Your task to perform on an android device: Open Google Chrome and click the shortcut for Amazon.com Image 0: 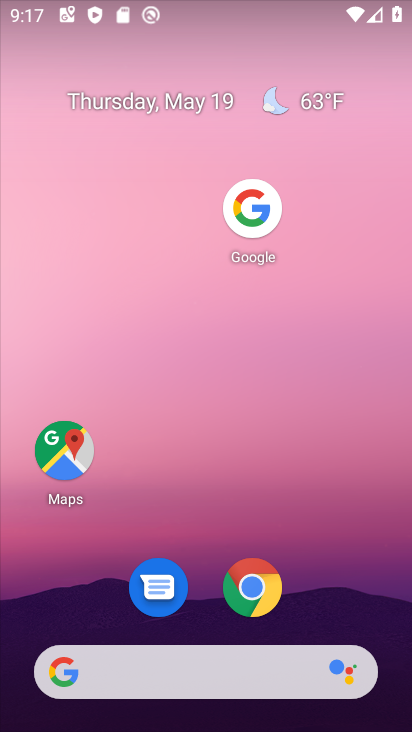
Step 0: click (257, 595)
Your task to perform on an android device: Open Google Chrome and click the shortcut for Amazon.com Image 1: 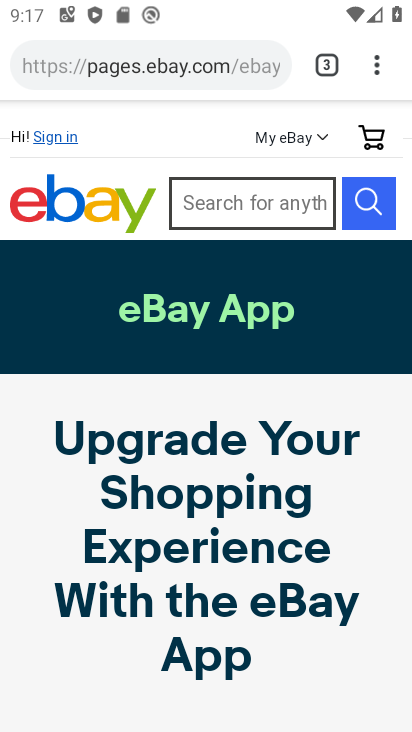
Step 1: click (333, 69)
Your task to perform on an android device: Open Google Chrome and click the shortcut for Amazon.com Image 2: 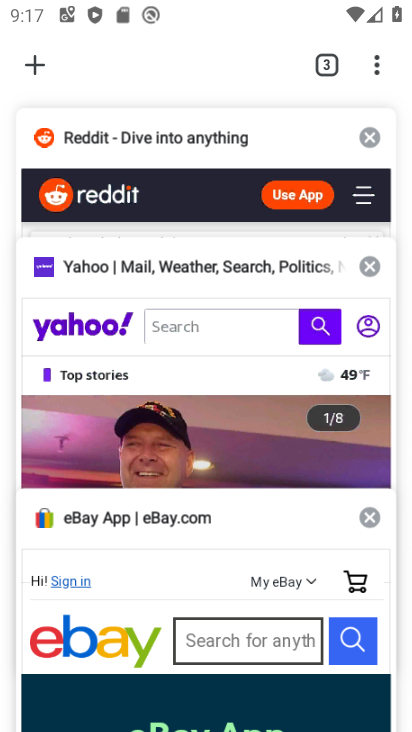
Step 2: click (32, 72)
Your task to perform on an android device: Open Google Chrome and click the shortcut for Amazon.com Image 3: 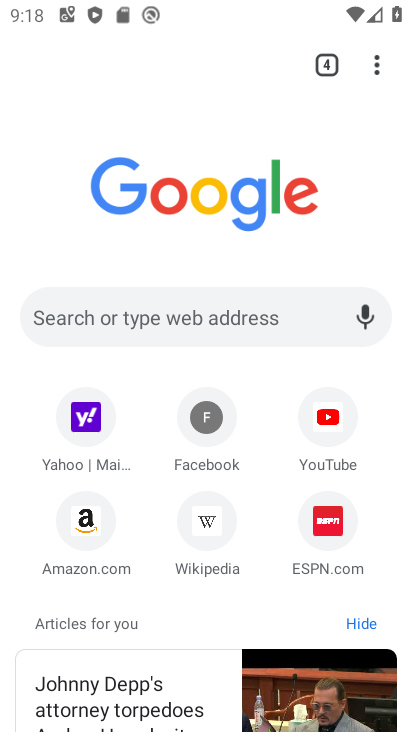
Step 3: click (91, 542)
Your task to perform on an android device: Open Google Chrome and click the shortcut for Amazon.com Image 4: 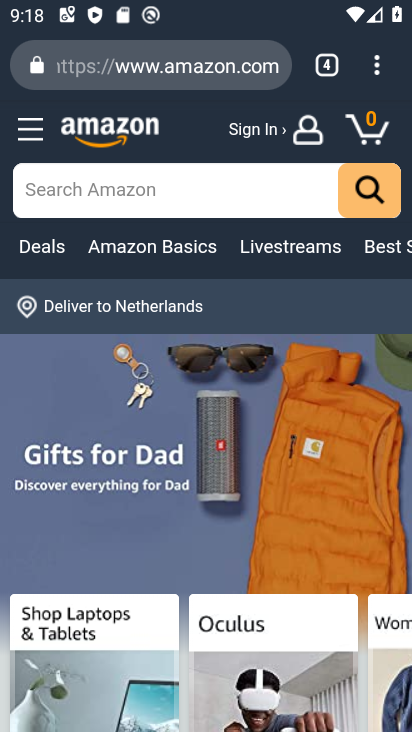
Step 4: task complete